Your task to perform on an android device: toggle pop-ups in chrome Image 0: 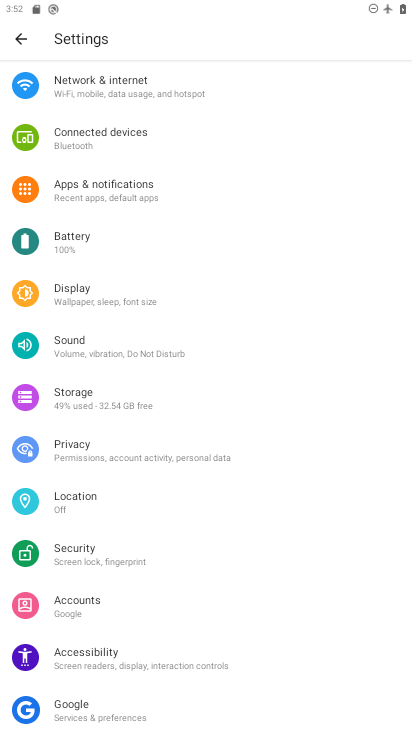
Step 0: press home button
Your task to perform on an android device: toggle pop-ups in chrome Image 1: 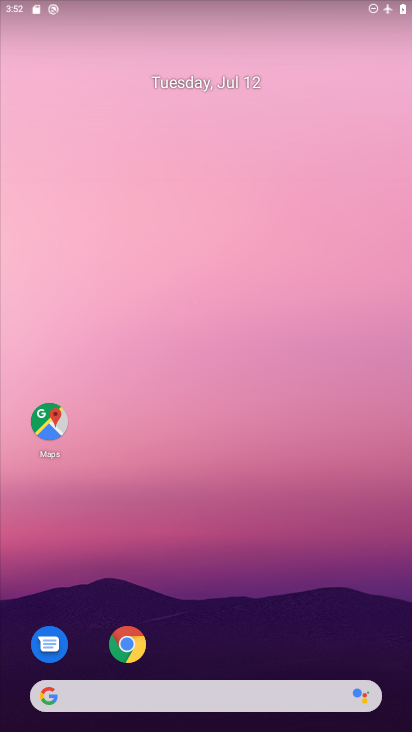
Step 1: drag from (204, 545) to (194, 87)
Your task to perform on an android device: toggle pop-ups in chrome Image 2: 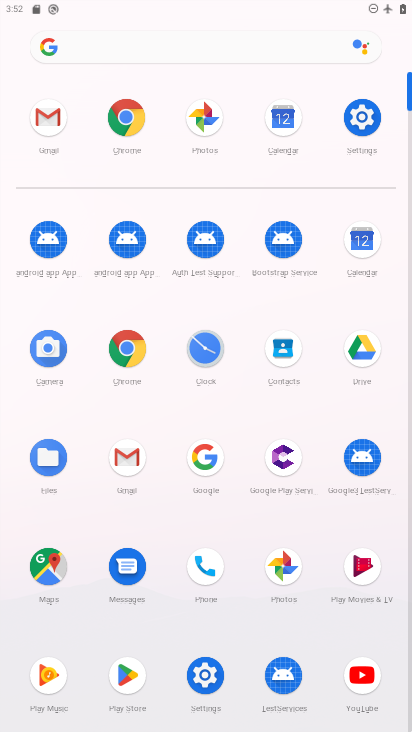
Step 2: click (128, 343)
Your task to perform on an android device: toggle pop-ups in chrome Image 3: 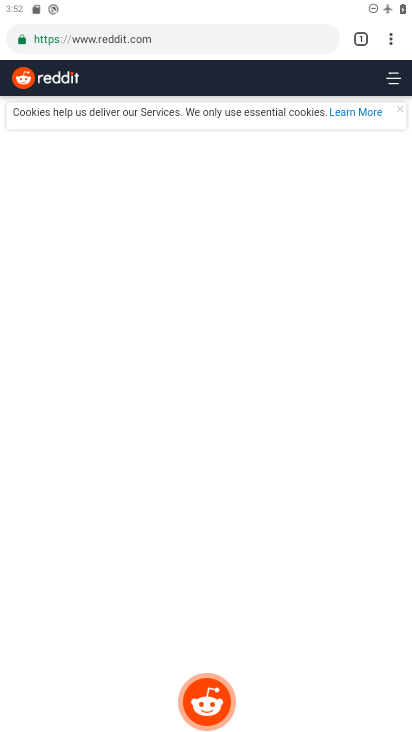
Step 3: click (393, 43)
Your task to perform on an android device: toggle pop-ups in chrome Image 4: 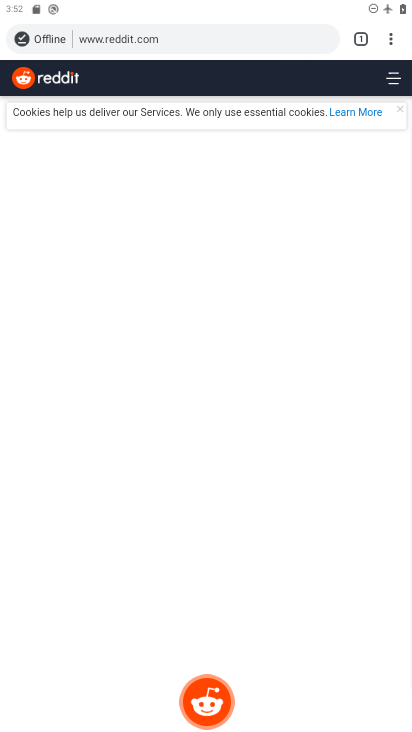
Step 4: drag from (393, 42) to (249, 438)
Your task to perform on an android device: toggle pop-ups in chrome Image 5: 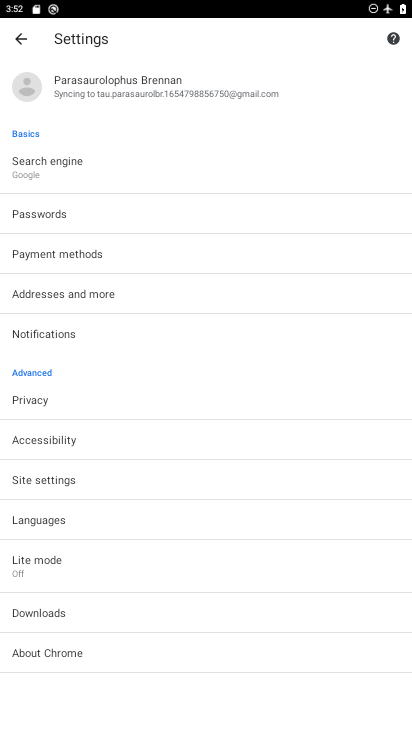
Step 5: click (55, 482)
Your task to perform on an android device: toggle pop-ups in chrome Image 6: 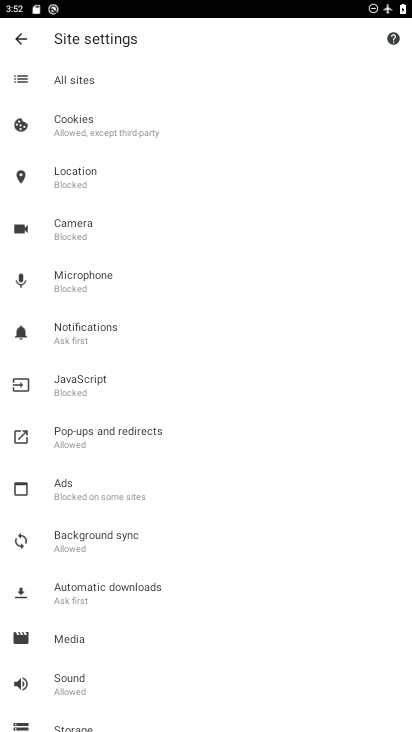
Step 6: click (84, 442)
Your task to perform on an android device: toggle pop-ups in chrome Image 7: 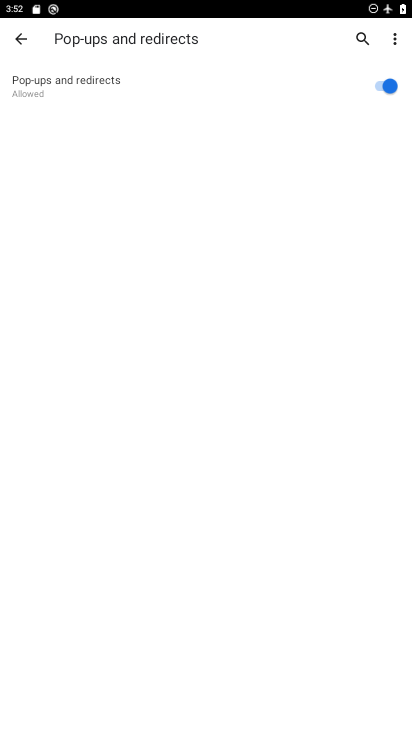
Step 7: click (384, 90)
Your task to perform on an android device: toggle pop-ups in chrome Image 8: 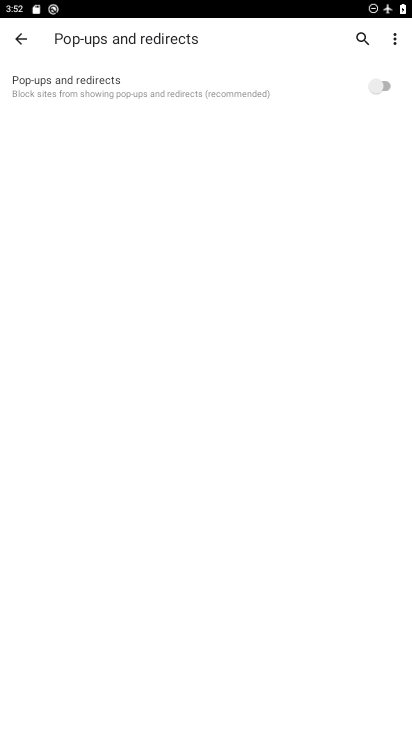
Step 8: task complete